Your task to perform on an android device: turn off smart reply in the gmail app Image 0: 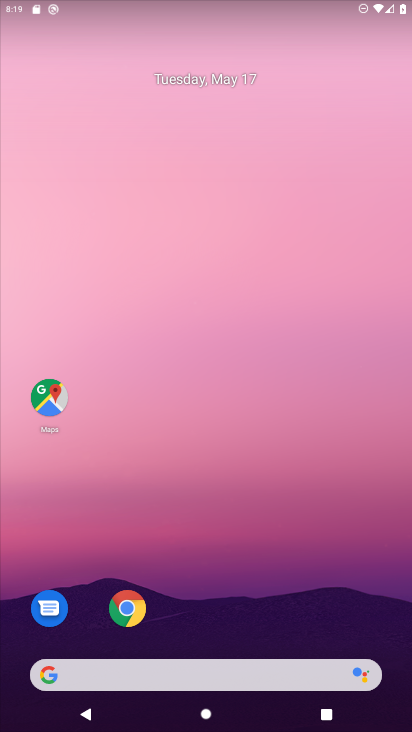
Step 0: drag from (195, 518) to (285, 75)
Your task to perform on an android device: turn off smart reply in the gmail app Image 1: 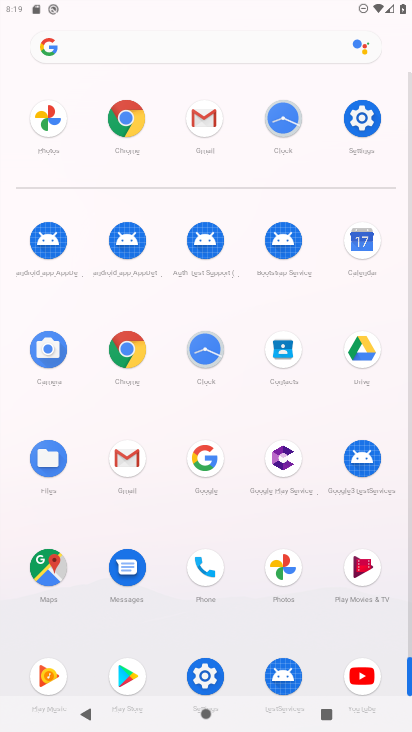
Step 1: click (129, 464)
Your task to perform on an android device: turn off smart reply in the gmail app Image 2: 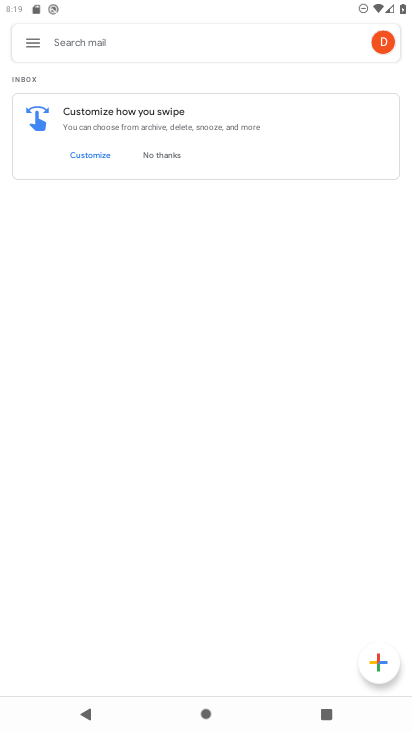
Step 2: click (28, 45)
Your task to perform on an android device: turn off smart reply in the gmail app Image 3: 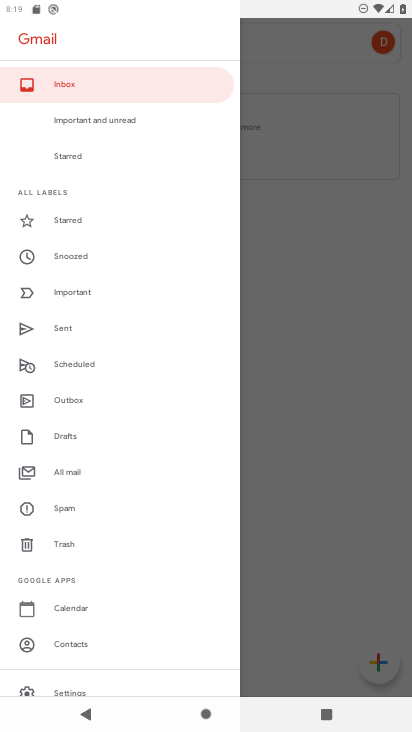
Step 3: drag from (66, 636) to (193, 266)
Your task to perform on an android device: turn off smart reply in the gmail app Image 4: 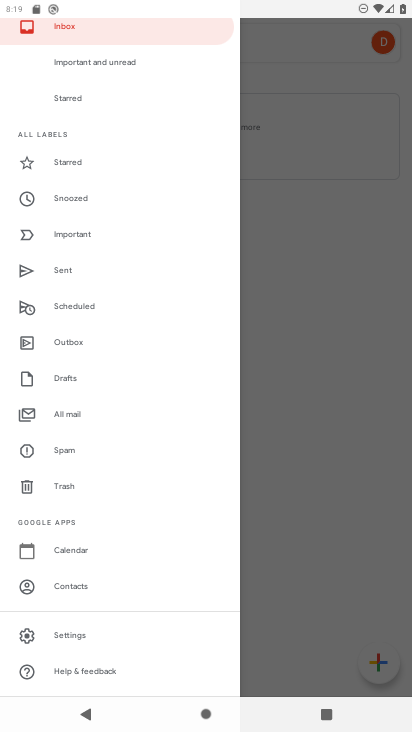
Step 4: click (46, 642)
Your task to perform on an android device: turn off smart reply in the gmail app Image 5: 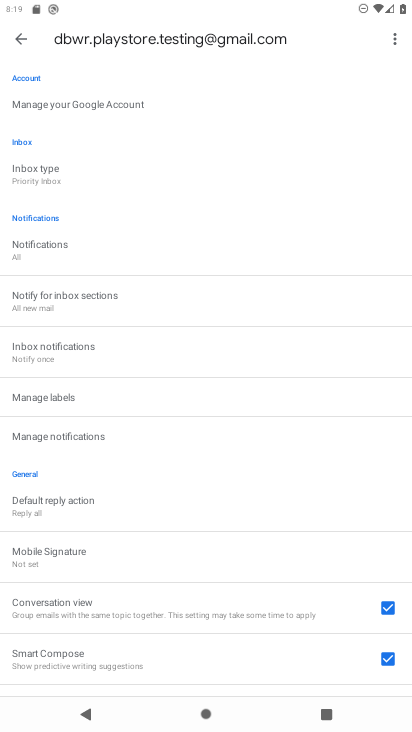
Step 5: drag from (141, 617) to (212, 206)
Your task to perform on an android device: turn off smart reply in the gmail app Image 6: 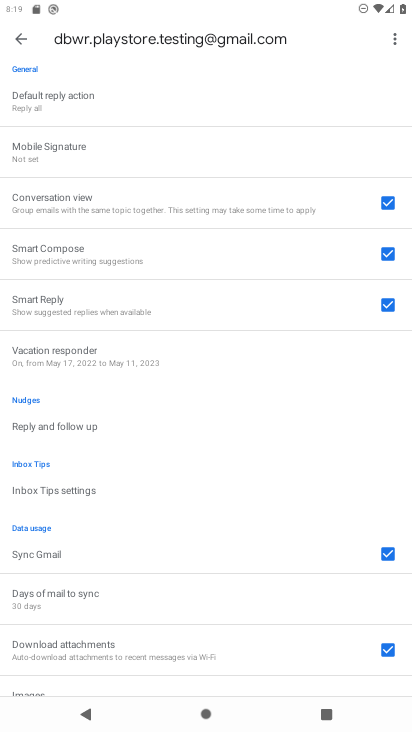
Step 6: click (380, 310)
Your task to perform on an android device: turn off smart reply in the gmail app Image 7: 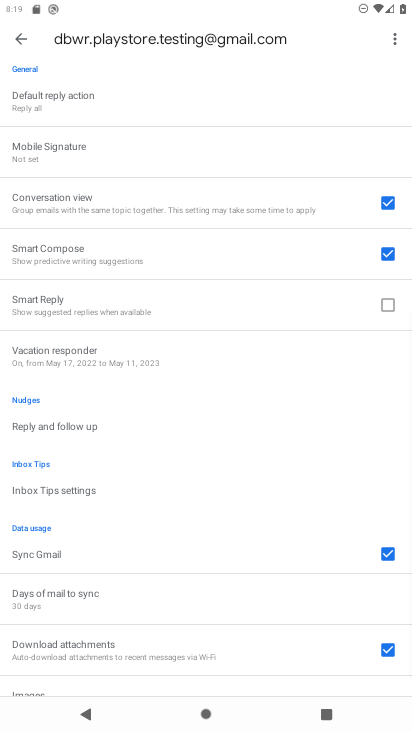
Step 7: task complete